Your task to perform on an android device: Open Google Chrome Image 0: 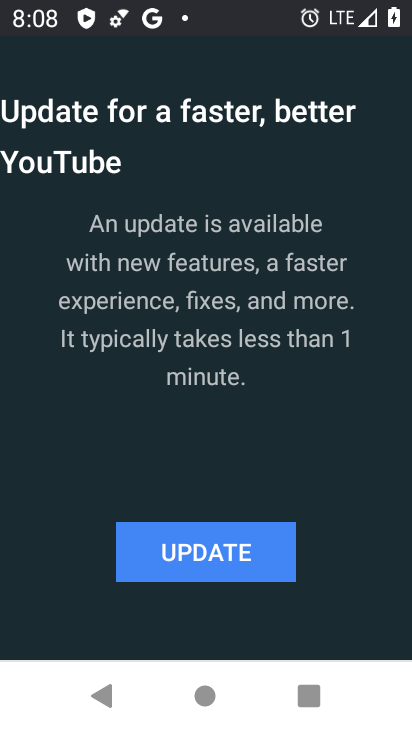
Step 0: press home button
Your task to perform on an android device: Open Google Chrome Image 1: 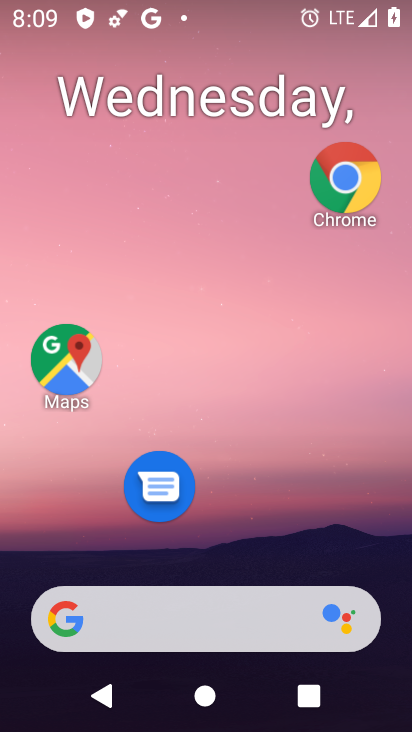
Step 1: drag from (295, 615) to (382, 96)
Your task to perform on an android device: Open Google Chrome Image 2: 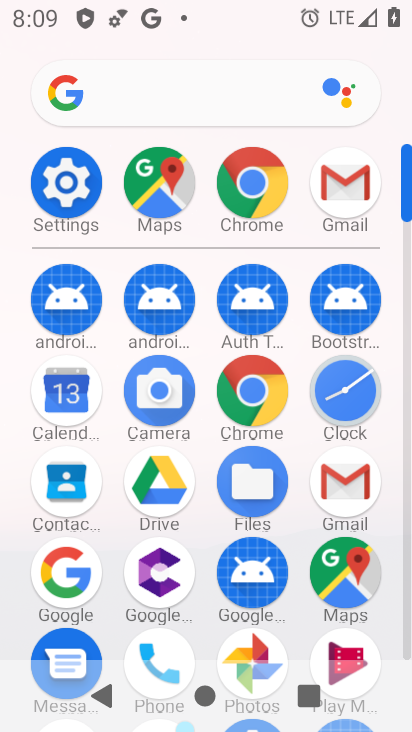
Step 2: drag from (208, 549) to (239, 354)
Your task to perform on an android device: Open Google Chrome Image 3: 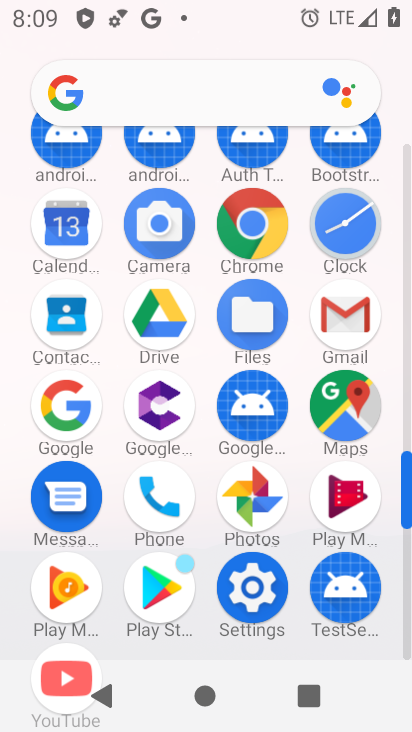
Step 3: click (269, 259)
Your task to perform on an android device: Open Google Chrome Image 4: 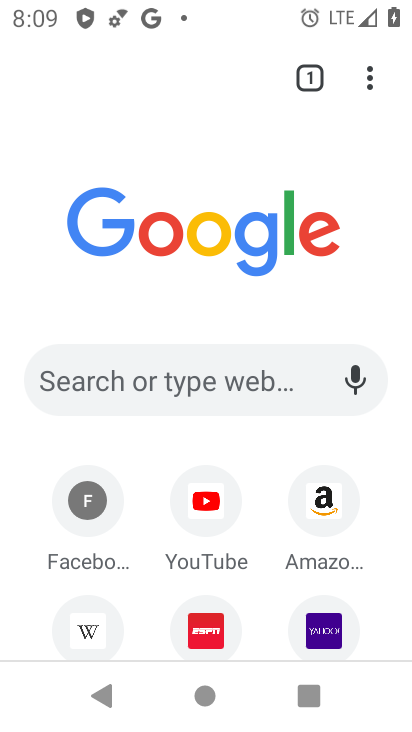
Step 4: task complete